Your task to perform on an android device: set the timer Image 0: 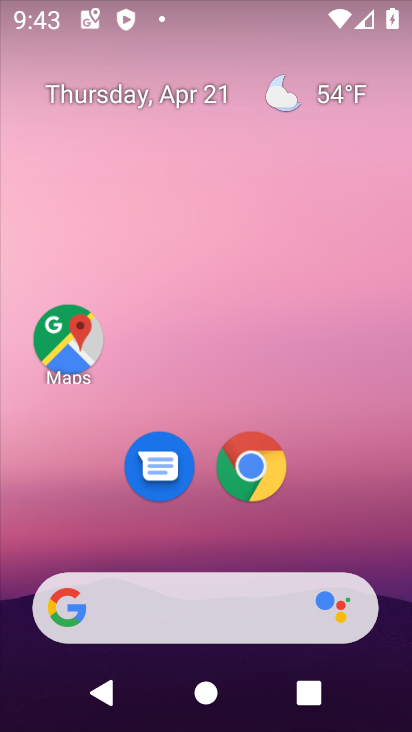
Step 0: drag from (383, 509) to (394, 119)
Your task to perform on an android device: set the timer Image 1: 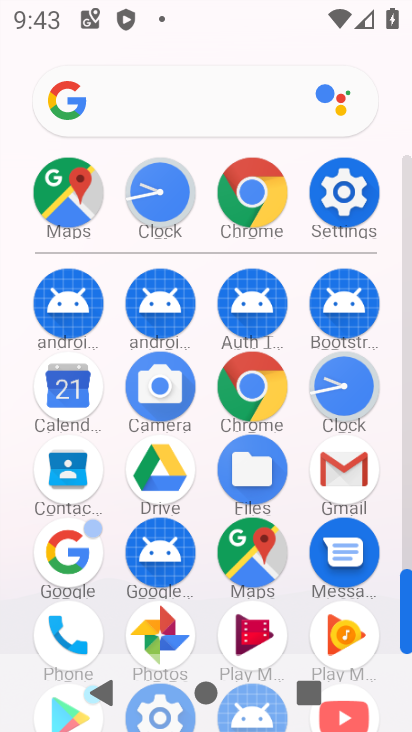
Step 1: click (332, 393)
Your task to perform on an android device: set the timer Image 2: 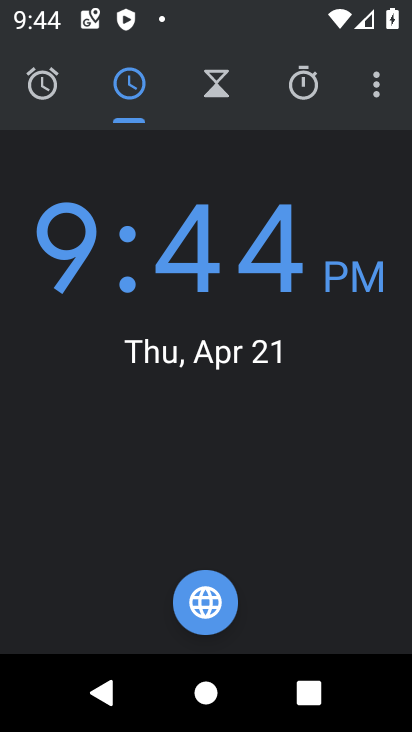
Step 2: click (228, 109)
Your task to perform on an android device: set the timer Image 3: 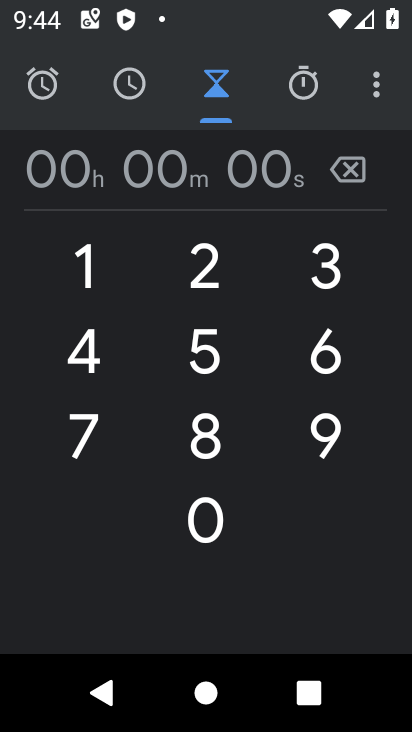
Step 3: click (73, 269)
Your task to perform on an android device: set the timer Image 4: 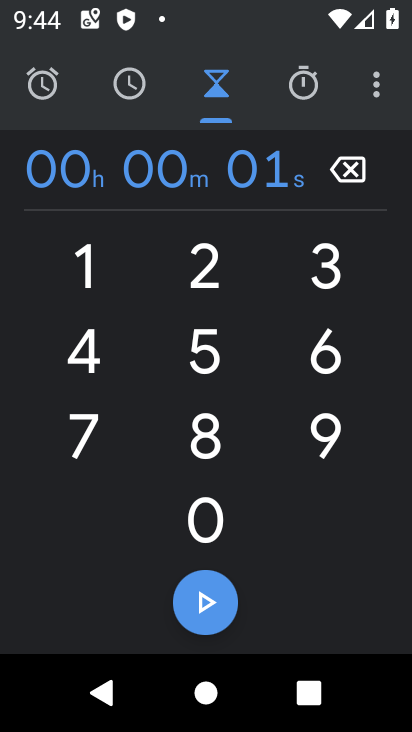
Step 4: click (197, 362)
Your task to perform on an android device: set the timer Image 5: 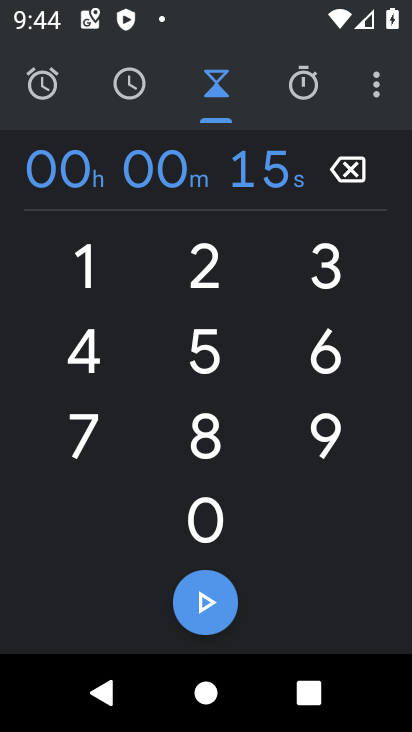
Step 5: click (212, 614)
Your task to perform on an android device: set the timer Image 6: 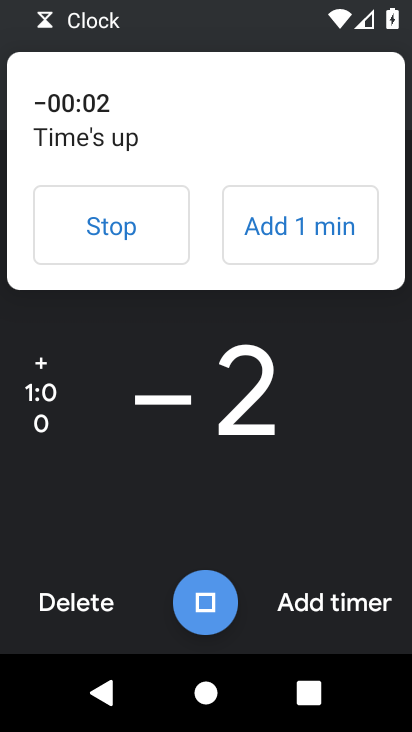
Step 6: click (81, 221)
Your task to perform on an android device: set the timer Image 7: 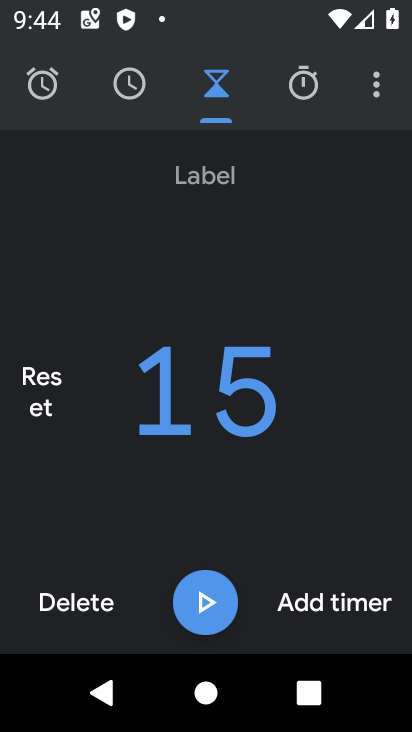
Step 7: task complete